Your task to perform on an android device: Show the shopping cart on bestbuy.com. Image 0: 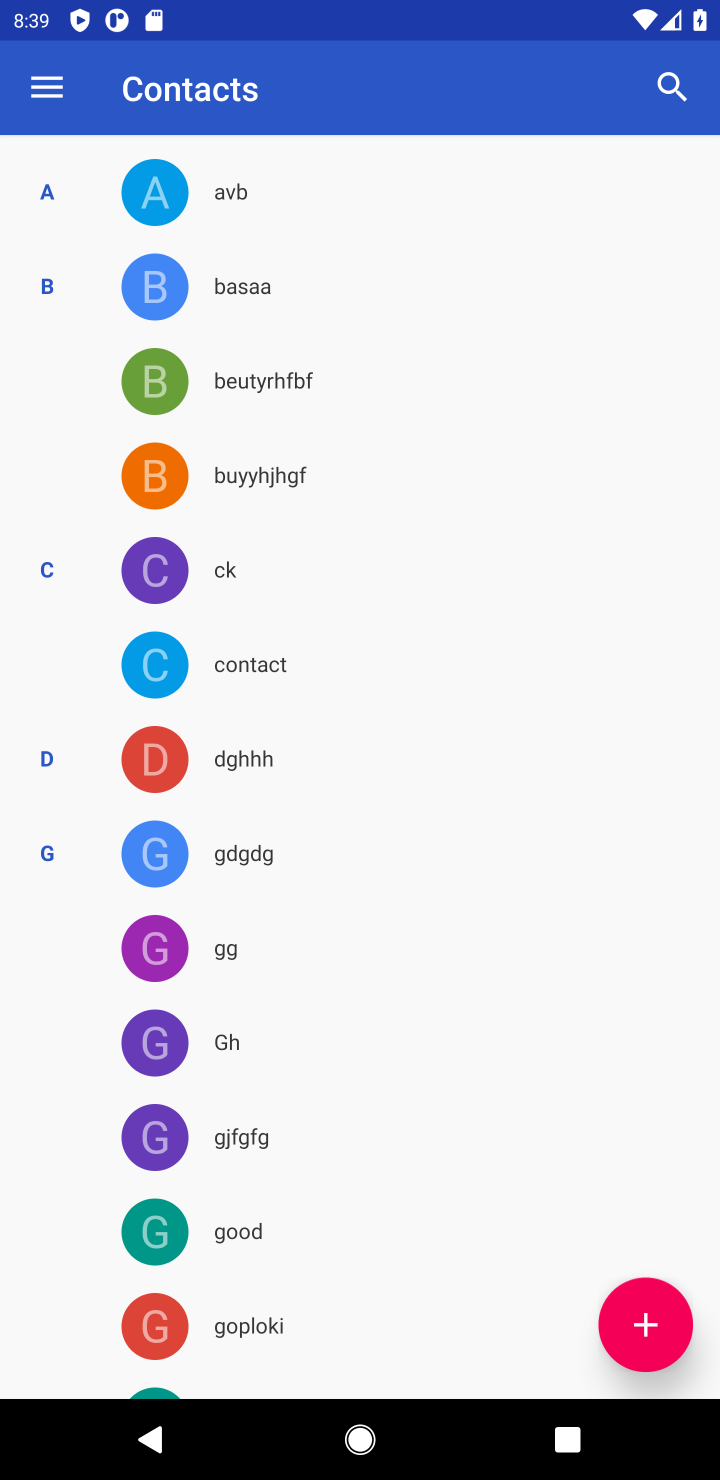
Step 0: press home button
Your task to perform on an android device: Show the shopping cart on bestbuy.com. Image 1: 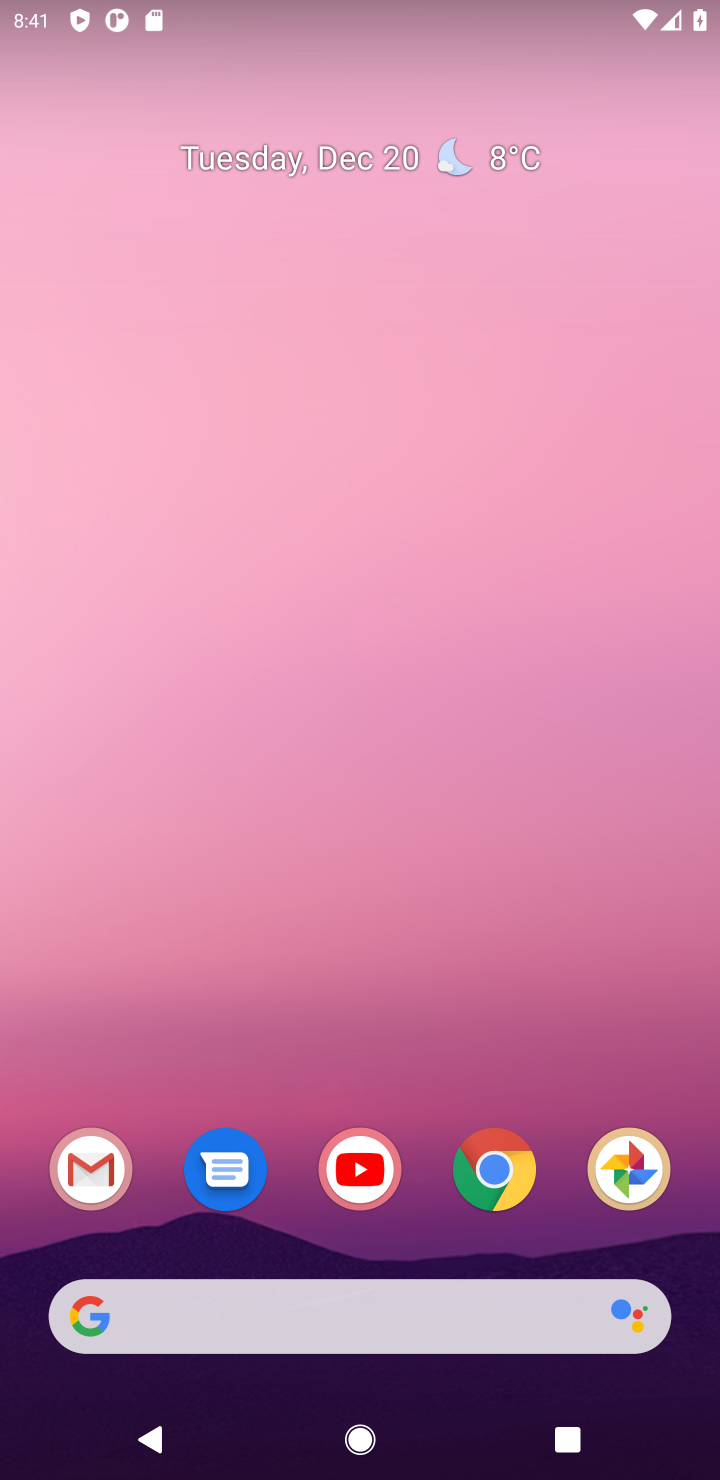
Step 1: click (518, 1181)
Your task to perform on an android device: Show the shopping cart on bestbuy.com. Image 2: 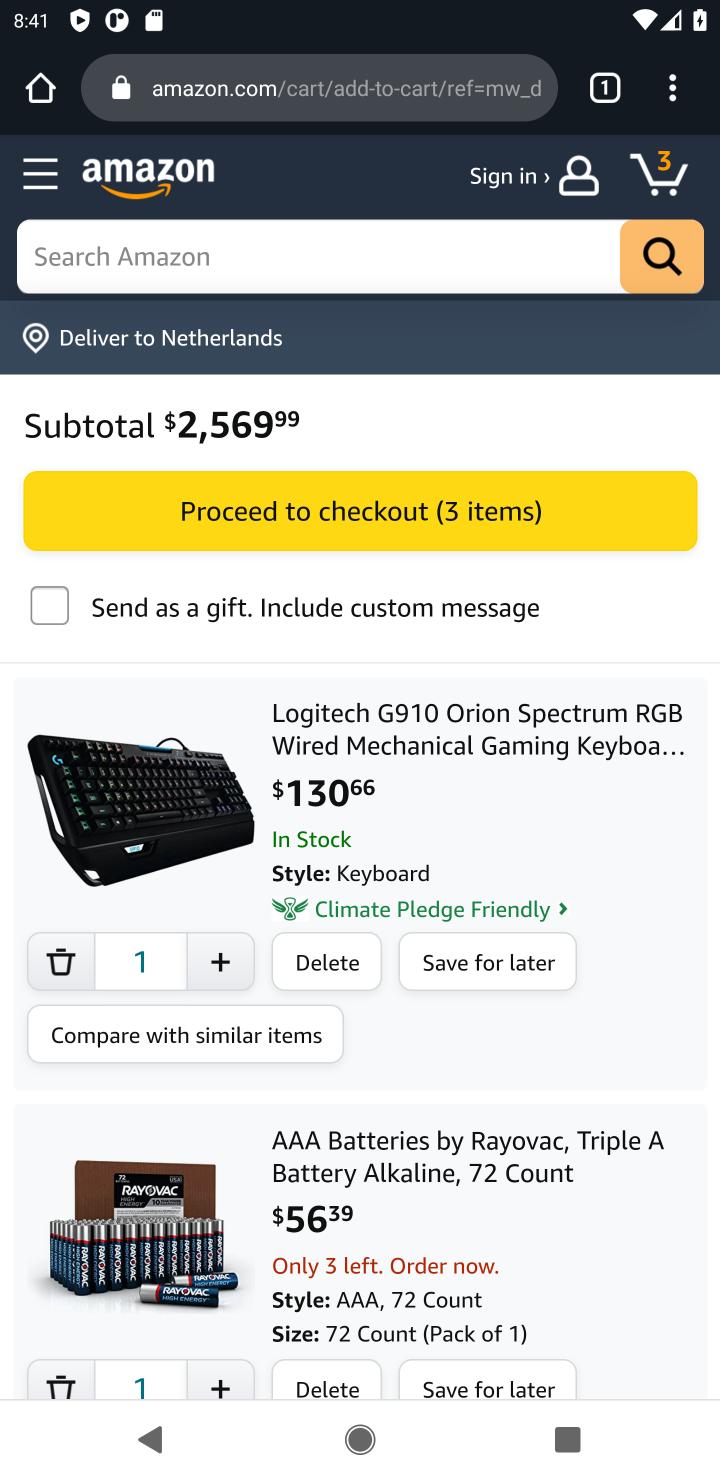
Step 2: click (330, 104)
Your task to perform on an android device: Show the shopping cart on bestbuy.com. Image 3: 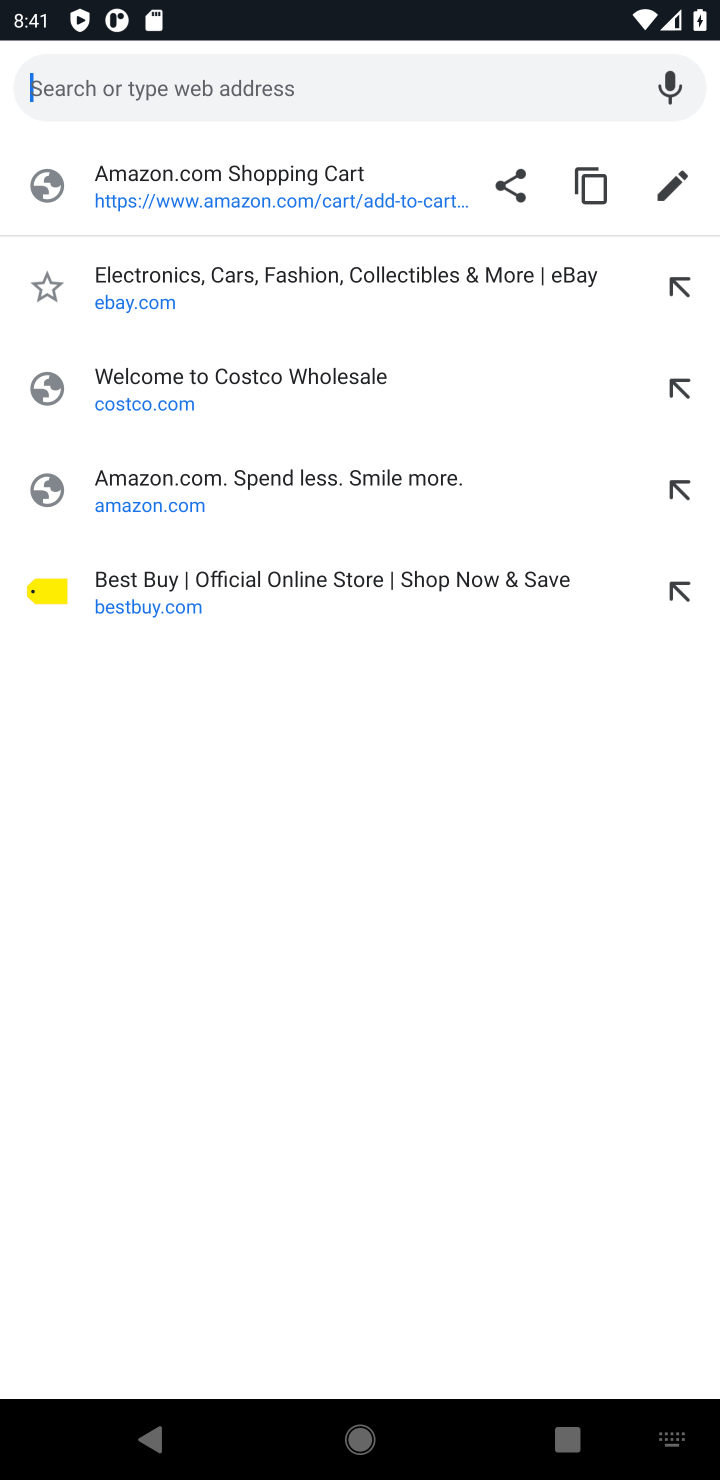
Step 3: type "bestbuy"
Your task to perform on an android device: Show the shopping cart on bestbuy.com. Image 4: 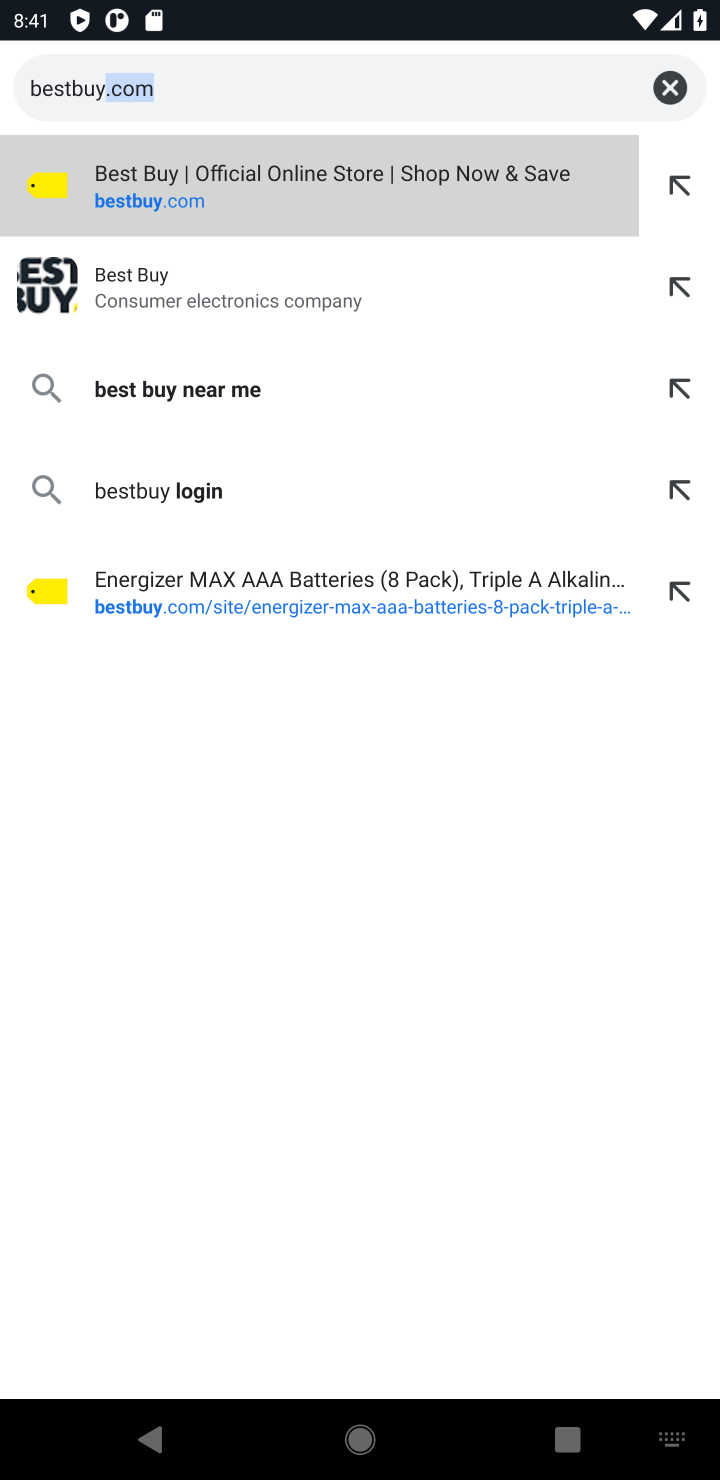
Step 4: click (356, 188)
Your task to perform on an android device: Show the shopping cart on bestbuy.com. Image 5: 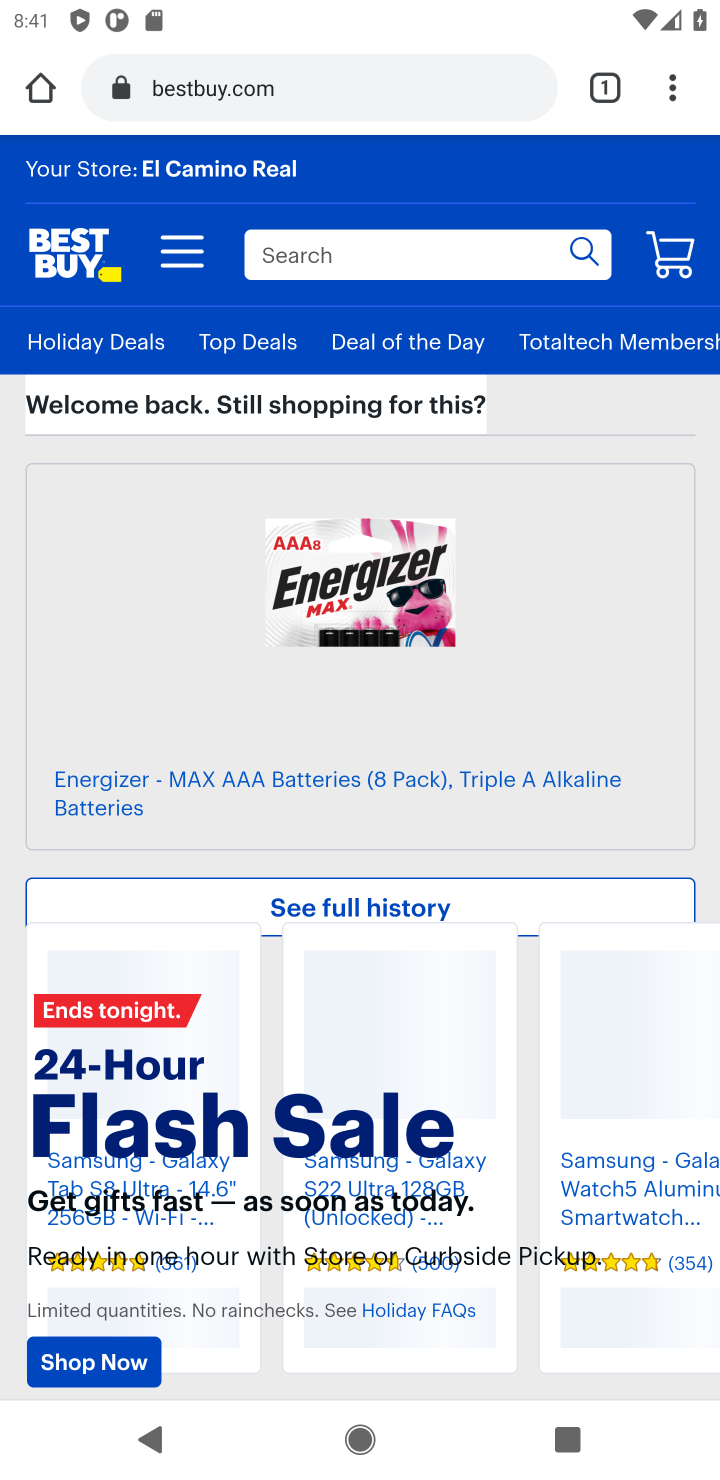
Step 5: click (317, 270)
Your task to perform on an android device: Show the shopping cart on bestbuy.com. Image 6: 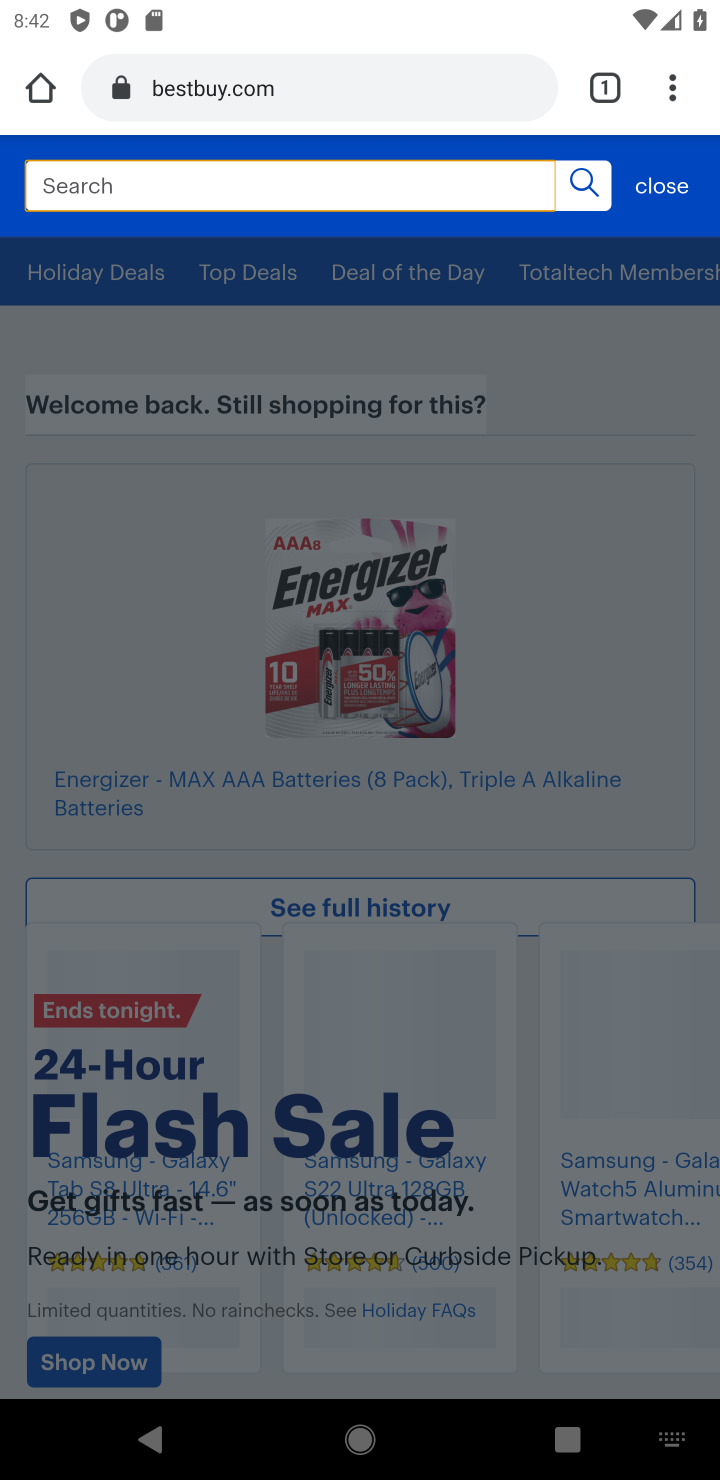
Step 6: click (683, 201)
Your task to perform on an android device: Show the shopping cart on bestbuy.com. Image 7: 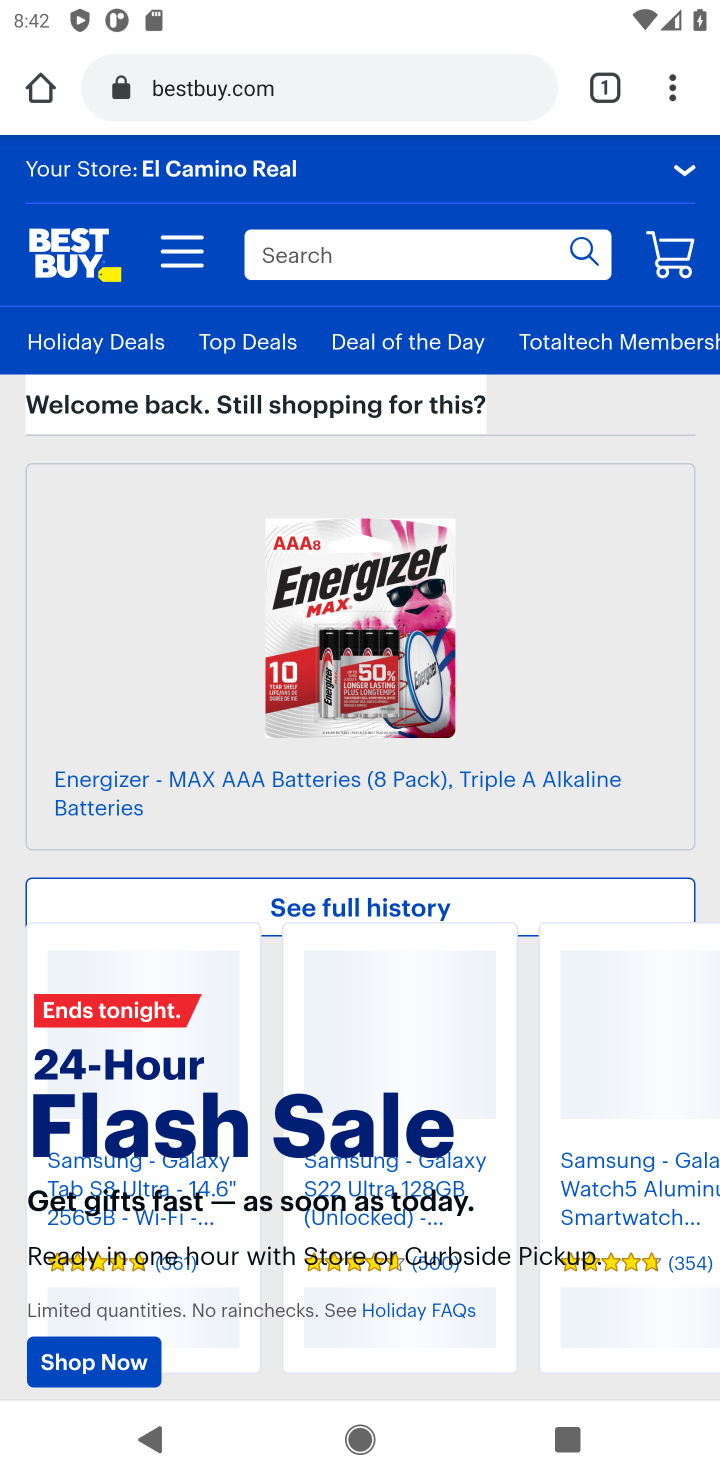
Step 7: click (678, 268)
Your task to perform on an android device: Show the shopping cart on bestbuy.com. Image 8: 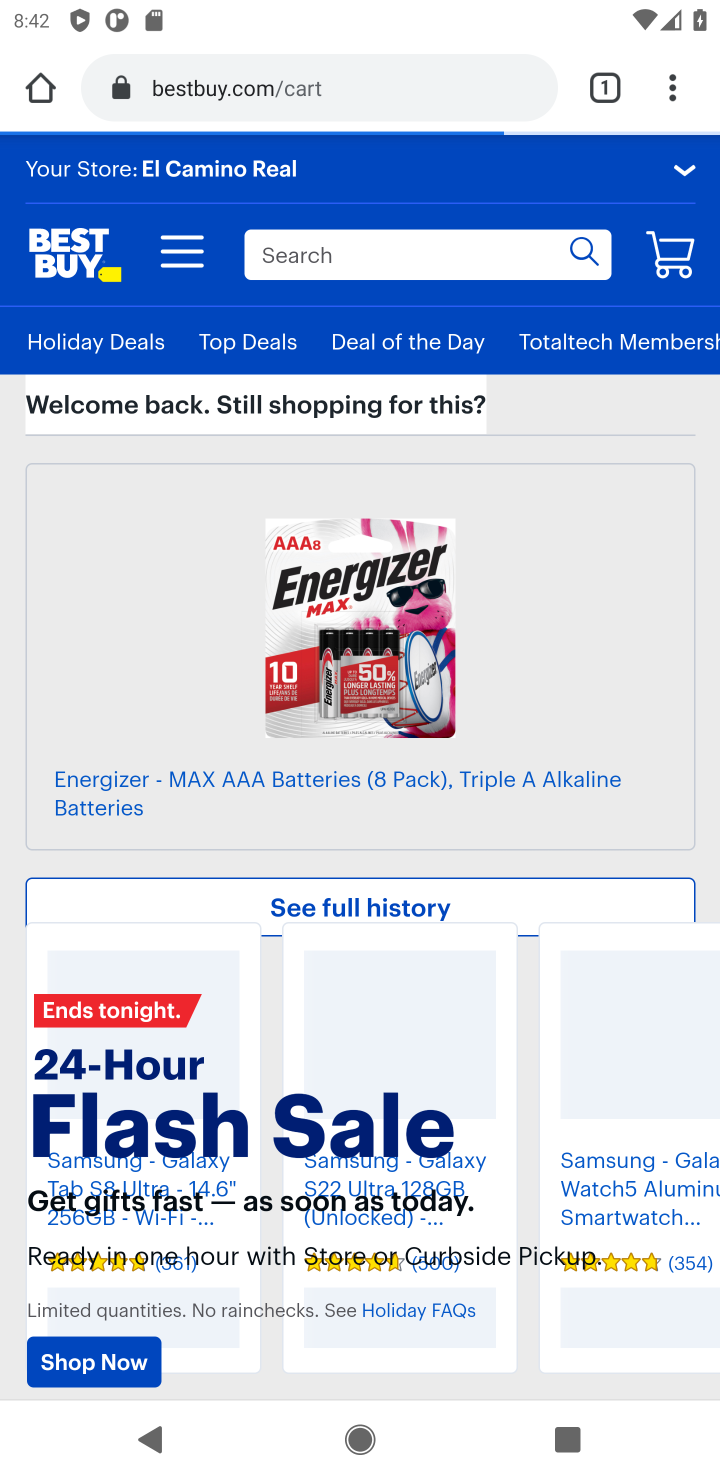
Step 8: task complete